Your task to perform on an android device: Open calendar and show me the third week of next month Image 0: 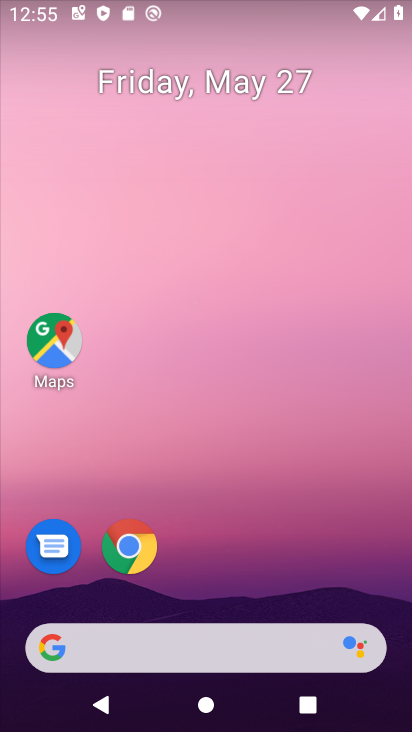
Step 0: drag from (256, 681) to (211, 129)
Your task to perform on an android device: Open calendar and show me the third week of next month Image 1: 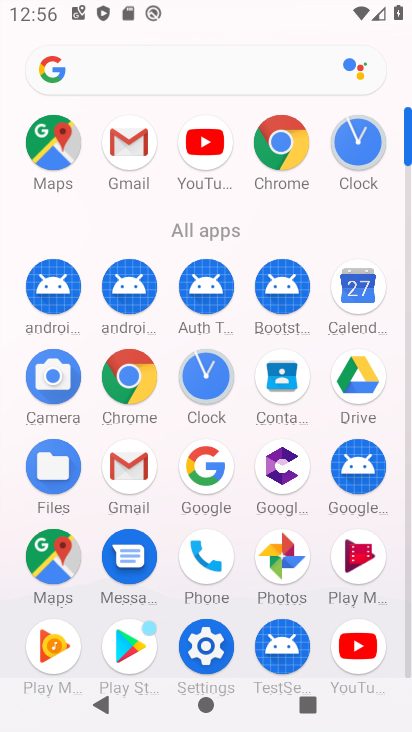
Step 1: click (355, 291)
Your task to perform on an android device: Open calendar and show me the third week of next month Image 2: 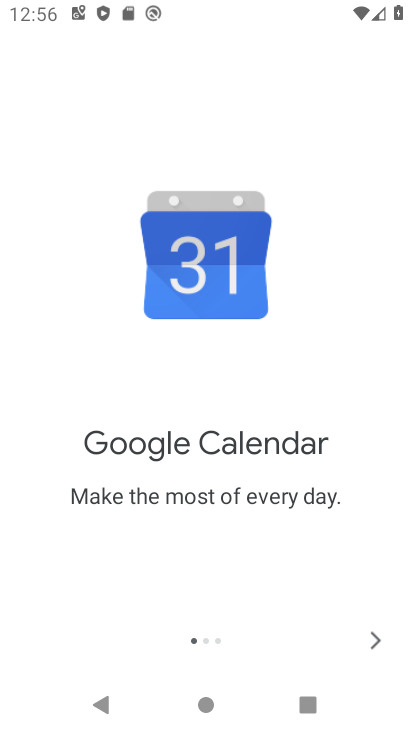
Step 2: click (357, 630)
Your task to perform on an android device: Open calendar and show me the third week of next month Image 3: 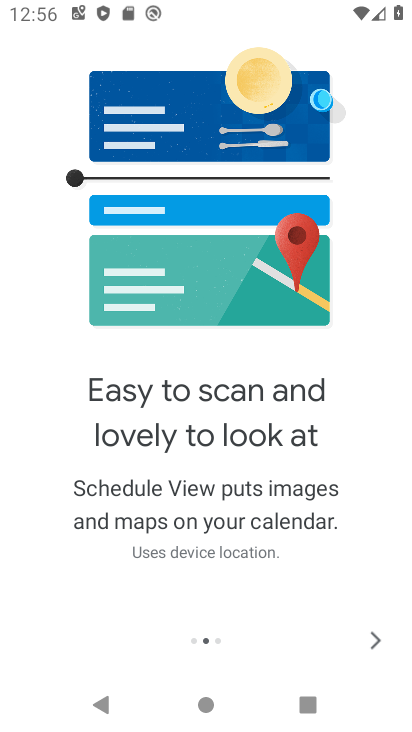
Step 3: click (356, 639)
Your task to perform on an android device: Open calendar and show me the third week of next month Image 4: 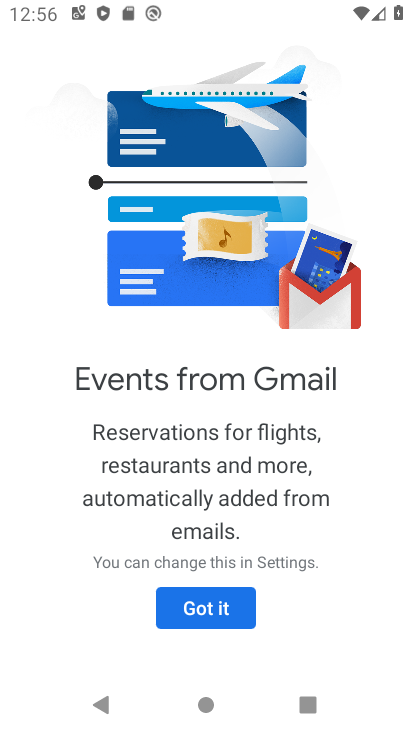
Step 4: click (213, 616)
Your task to perform on an android device: Open calendar and show me the third week of next month Image 5: 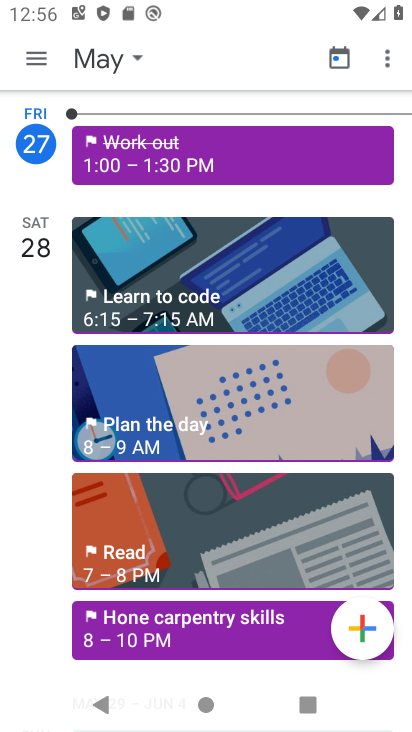
Step 5: click (39, 68)
Your task to perform on an android device: Open calendar and show me the third week of next month Image 6: 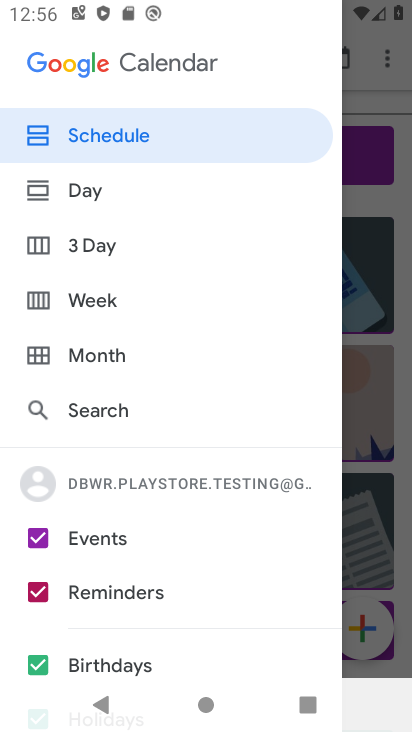
Step 6: click (100, 363)
Your task to perform on an android device: Open calendar and show me the third week of next month Image 7: 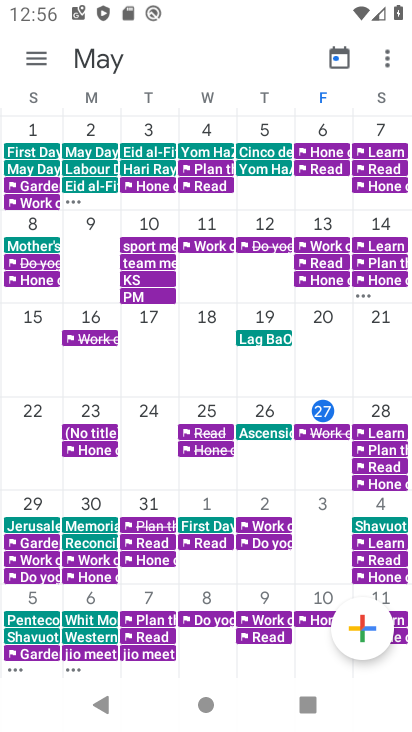
Step 7: drag from (373, 370) to (8, 400)
Your task to perform on an android device: Open calendar and show me the third week of next month Image 8: 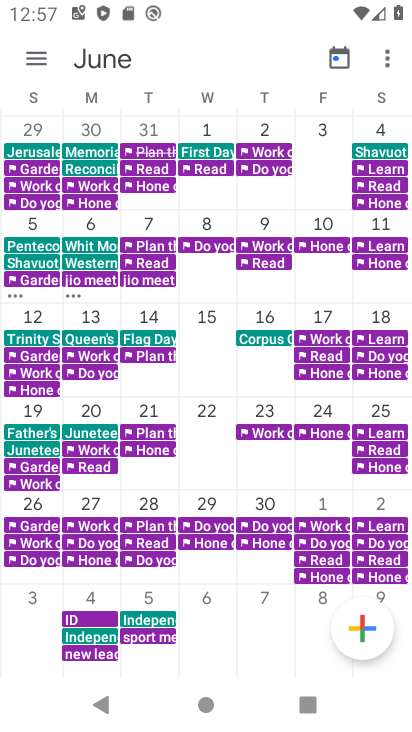
Step 8: click (96, 418)
Your task to perform on an android device: Open calendar and show me the third week of next month Image 9: 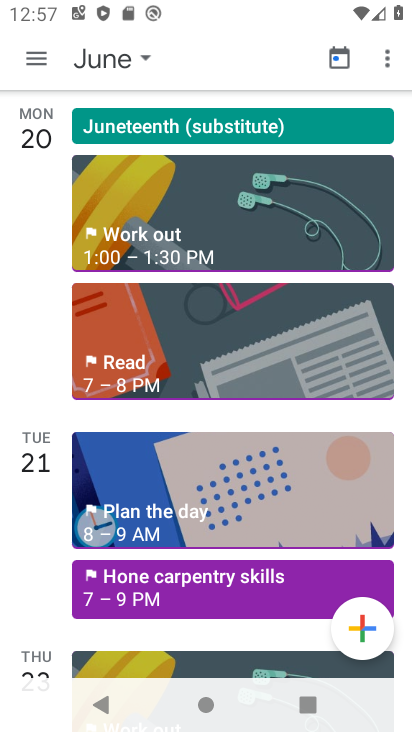
Step 9: task complete